Your task to perform on an android device: Set the phone to "Do not disturb". Image 0: 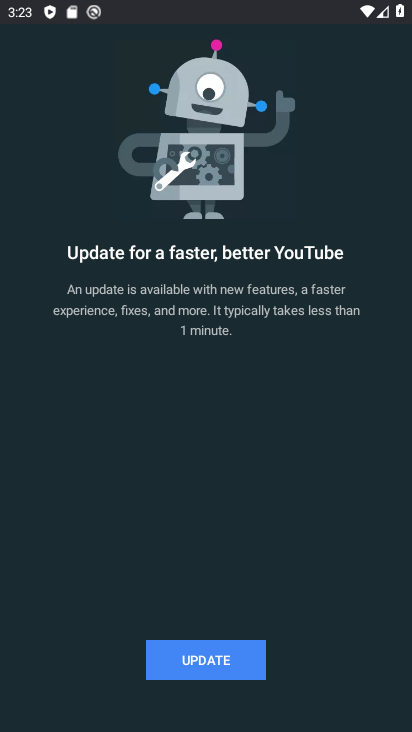
Step 0: press home button
Your task to perform on an android device: Set the phone to "Do not disturb". Image 1: 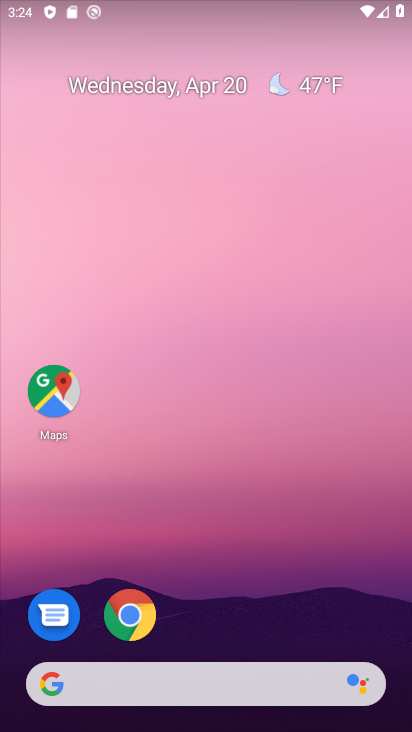
Step 1: drag from (261, 245) to (270, 56)
Your task to perform on an android device: Set the phone to "Do not disturb". Image 2: 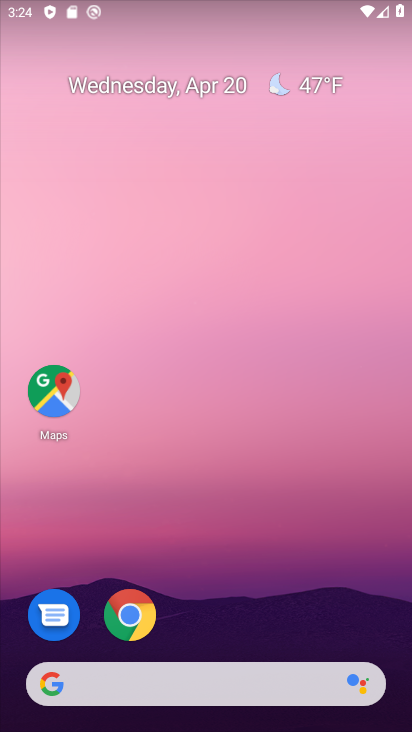
Step 2: drag from (237, 640) to (275, 4)
Your task to perform on an android device: Set the phone to "Do not disturb". Image 3: 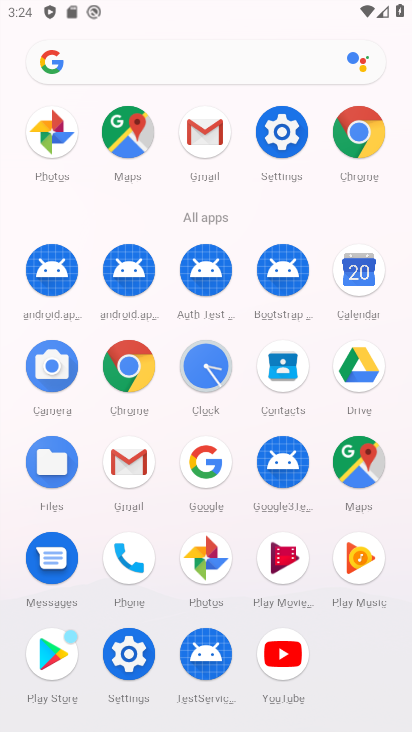
Step 3: click (279, 144)
Your task to perform on an android device: Set the phone to "Do not disturb". Image 4: 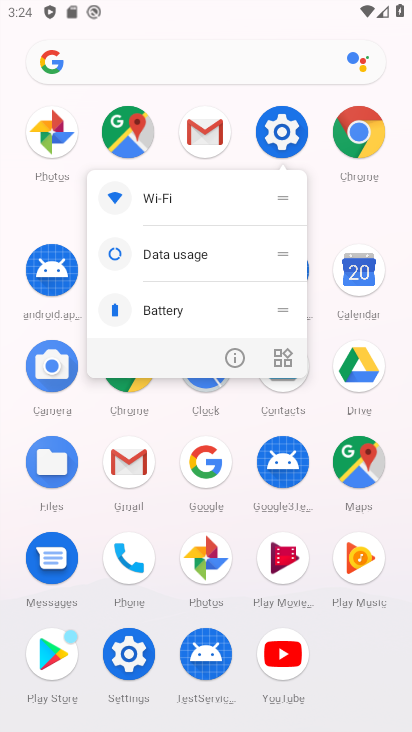
Step 4: click (282, 143)
Your task to perform on an android device: Set the phone to "Do not disturb". Image 5: 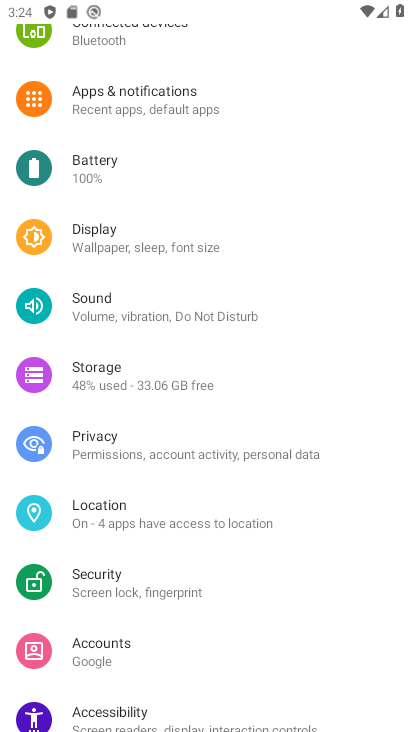
Step 5: drag from (216, 158) to (230, 581)
Your task to perform on an android device: Set the phone to "Do not disturb". Image 6: 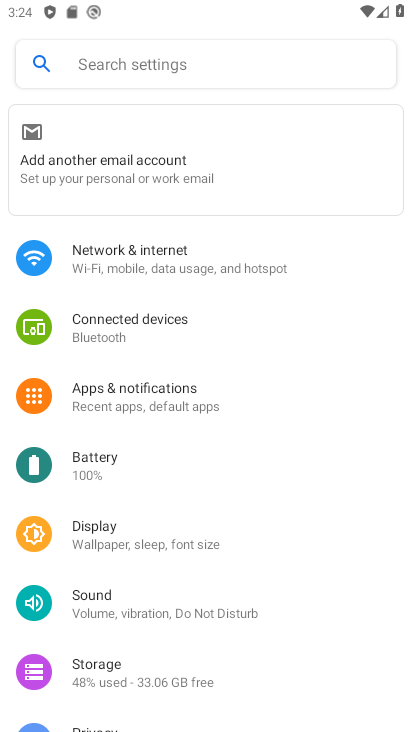
Step 6: drag from (227, 578) to (238, 195)
Your task to perform on an android device: Set the phone to "Do not disturb". Image 7: 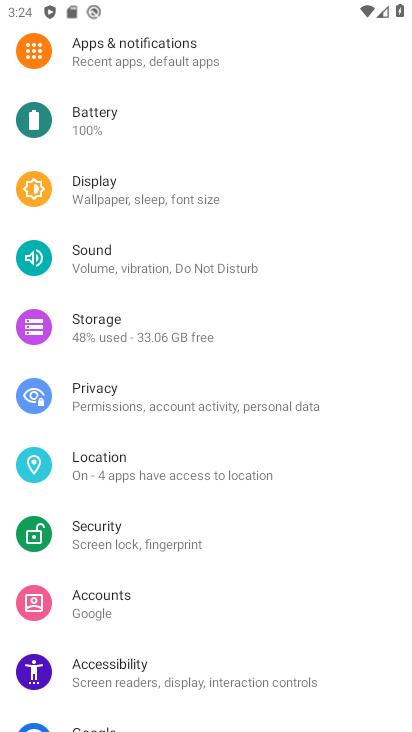
Step 7: drag from (271, 542) to (274, 97)
Your task to perform on an android device: Set the phone to "Do not disturb". Image 8: 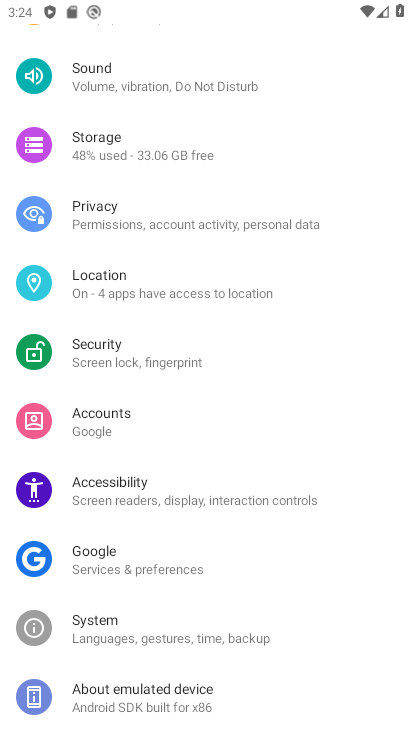
Step 8: drag from (343, 211) to (343, 486)
Your task to perform on an android device: Set the phone to "Do not disturb". Image 9: 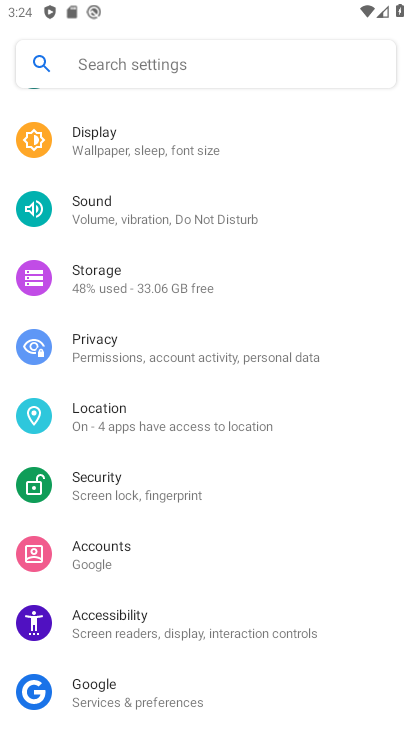
Step 9: click (221, 225)
Your task to perform on an android device: Set the phone to "Do not disturb". Image 10: 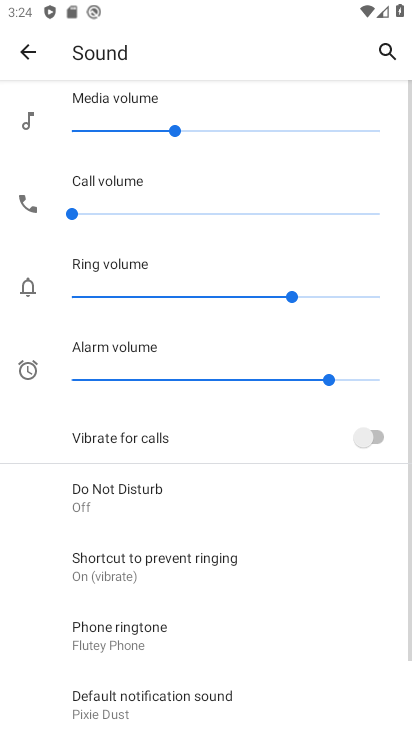
Step 10: drag from (261, 662) to (240, 135)
Your task to perform on an android device: Set the phone to "Do not disturb". Image 11: 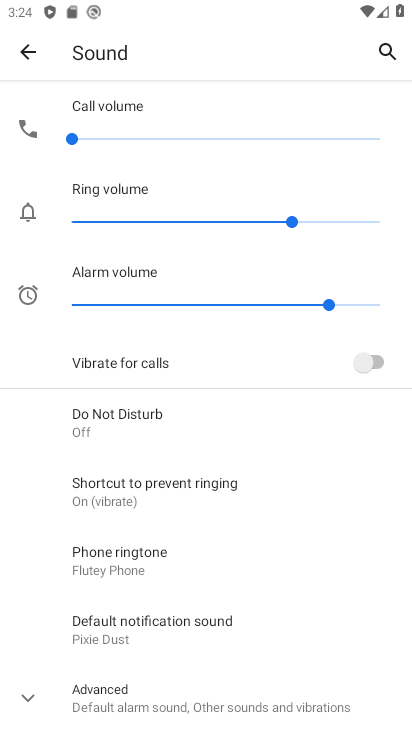
Step 11: click (114, 430)
Your task to perform on an android device: Set the phone to "Do not disturb". Image 12: 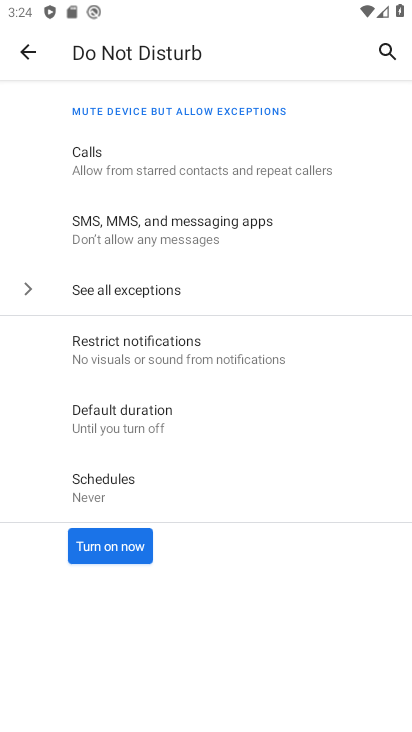
Step 12: click (132, 539)
Your task to perform on an android device: Set the phone to "Do not disturb". Image 13: 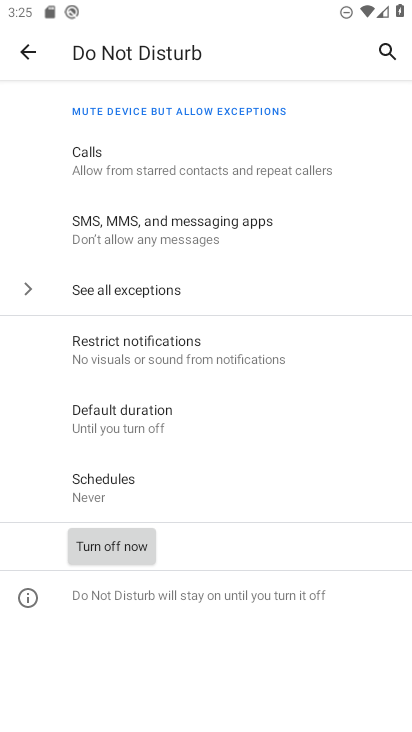
Step 13: task complete